Your task to perform on an android device: turn notification dots off Image 0: 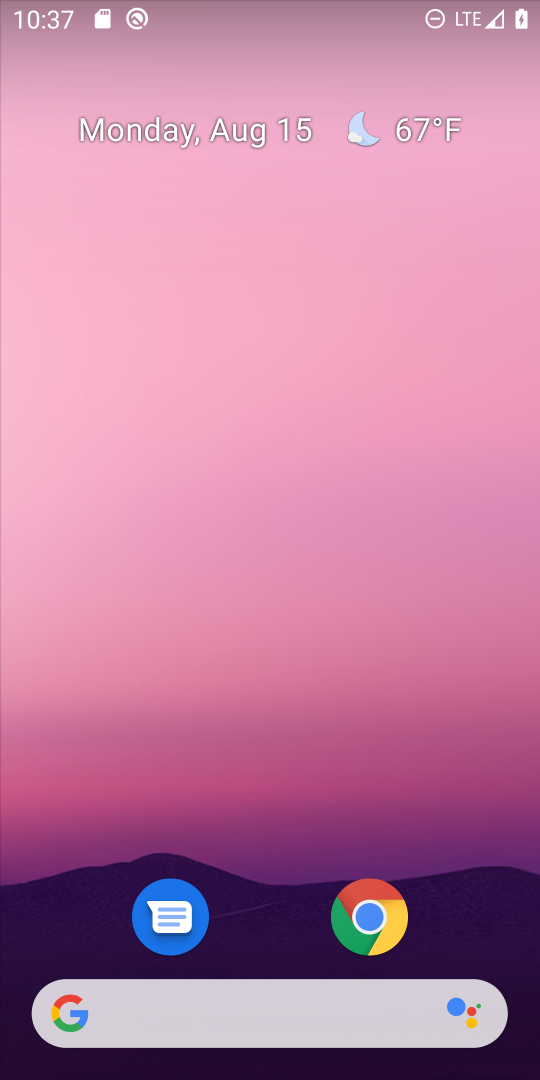
Step 0: drag from (294, 867) to (278, 17)
Your task to perform on an android device: turn notification dots off Image 1: 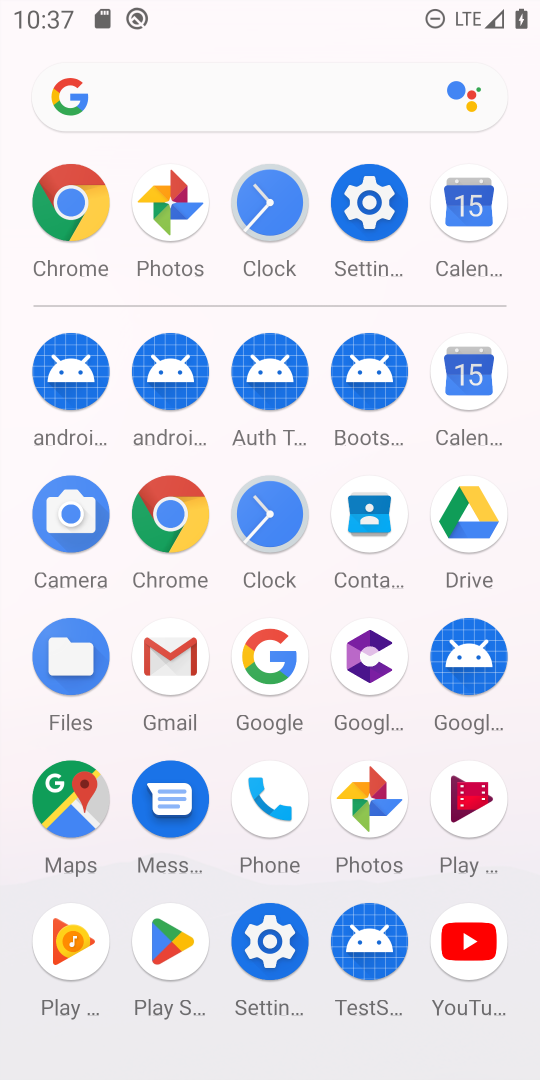
Step 1: click (357, 194)
Your task to perform on an android device: turn notification dots off Image 2: 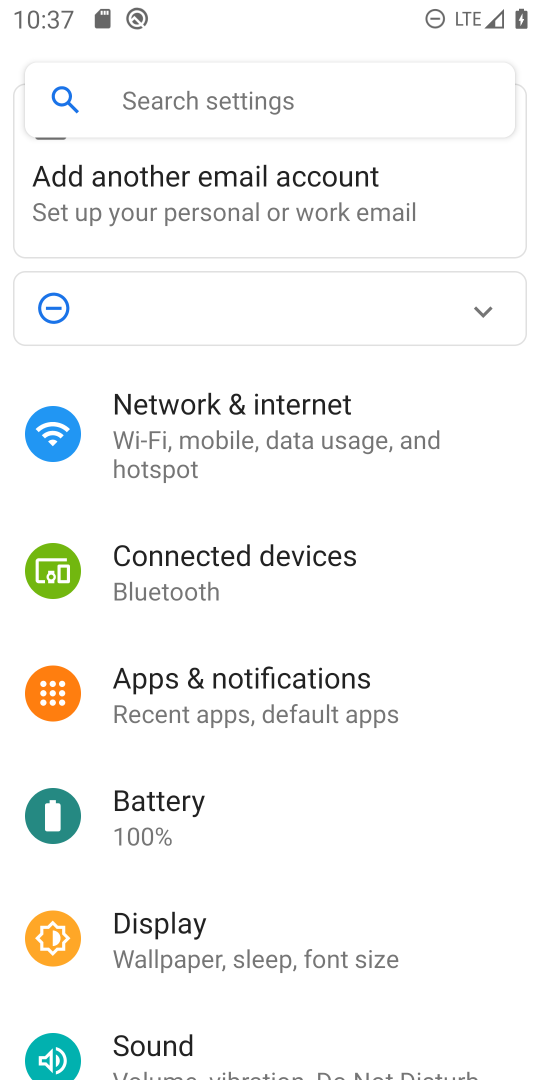
Step 2: click (250, 693)
Your task to perform on an android device: turn notification dots off Image 3: 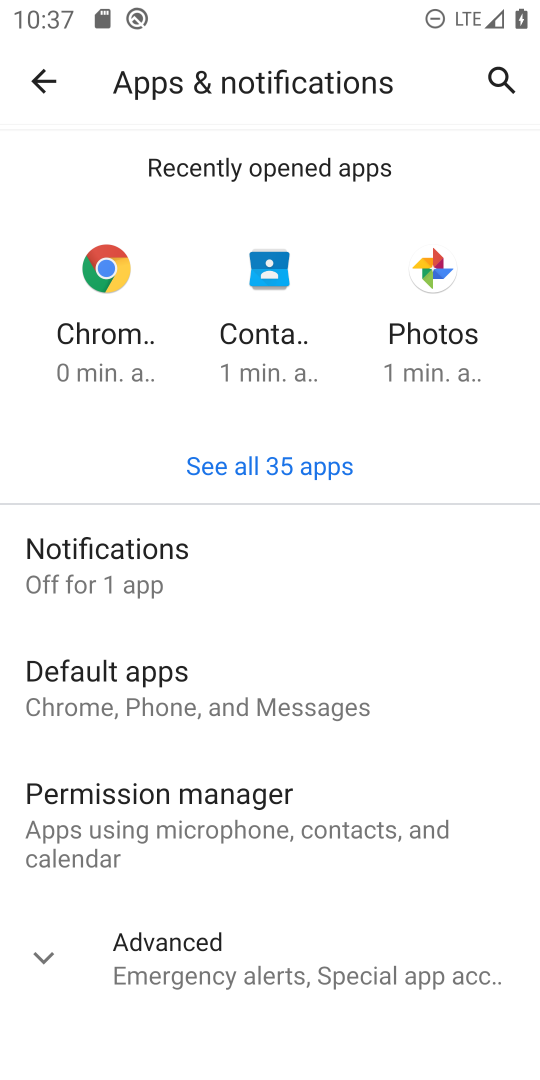
Step 3: click (46, 962)
Your task to perform on an android device: turn notification dots off Image 4: 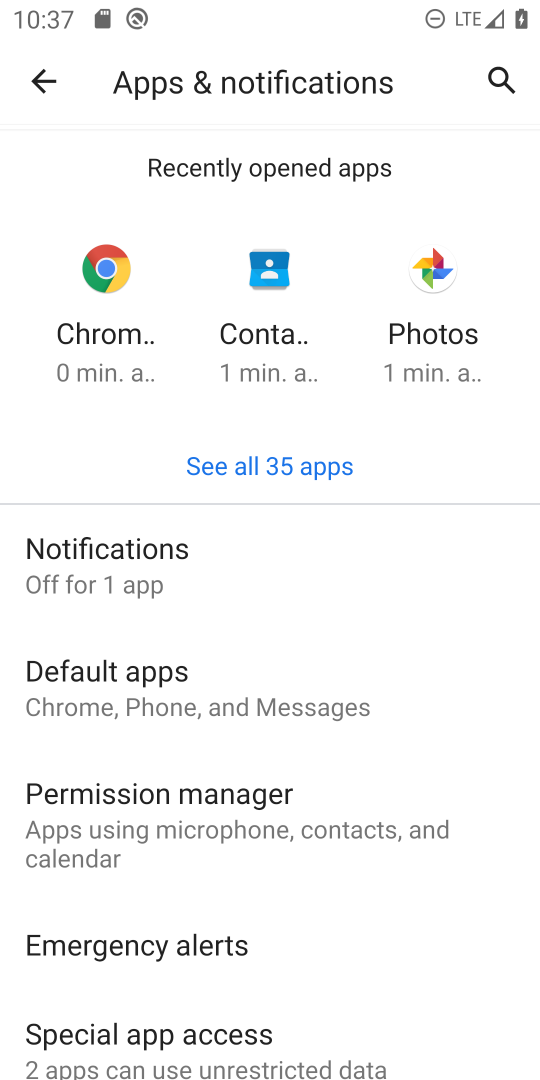
Step 4: drag from (379, 945) to (332, 0)
Your task to perform on an android device: turn notification dots off Image 5: 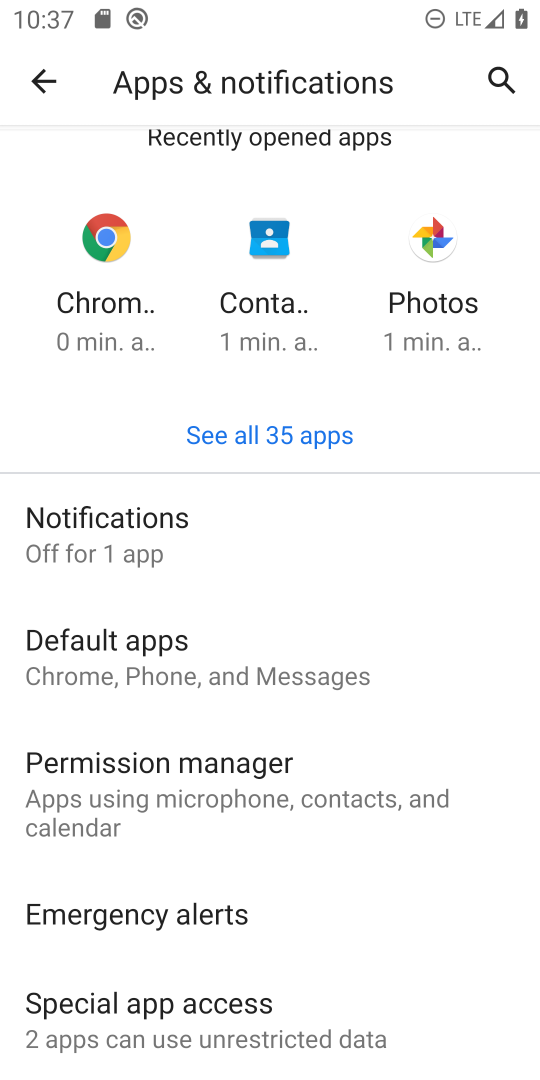
Step 5: click (127, 533)
Your task to perform on an android device: turn notification dots off Image 6: 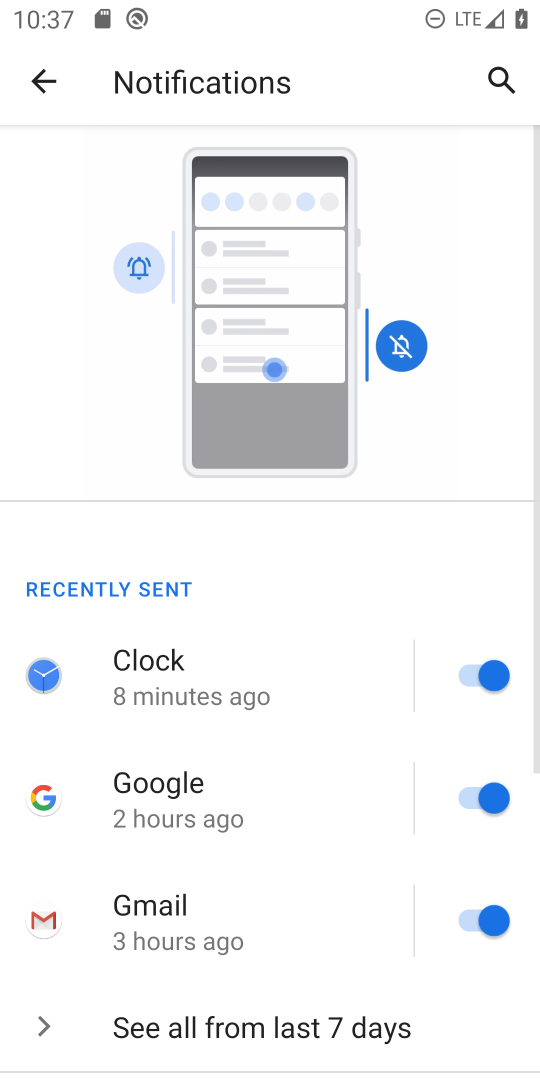
Step 6: drag from (329, 895) to (325, 0)
Your task to perform on an android device: turn notification dots off Image 7: 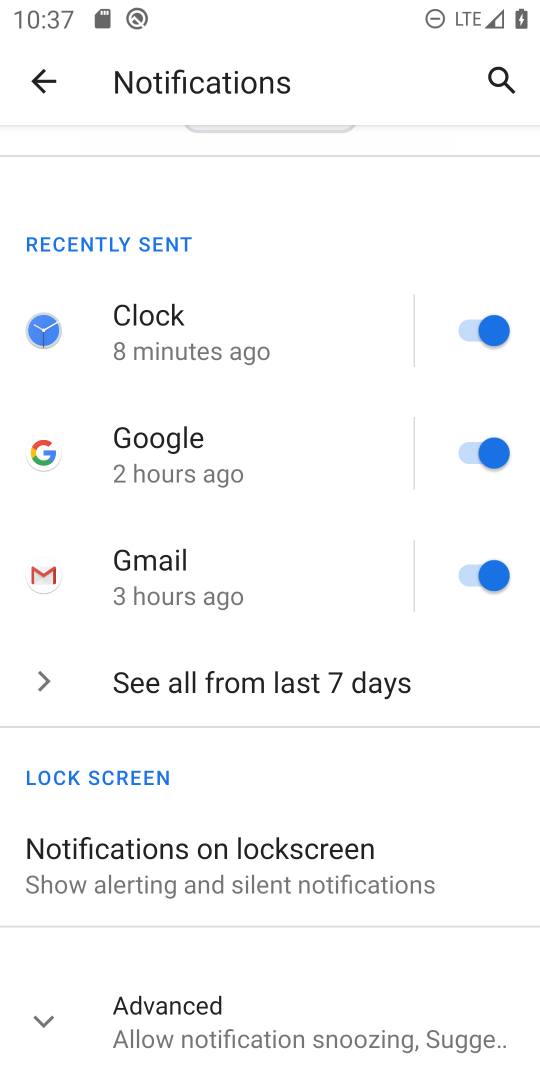
Step 7: click (47, 1017)
Your task to perform on an android device: turn notification dots off Image 8: 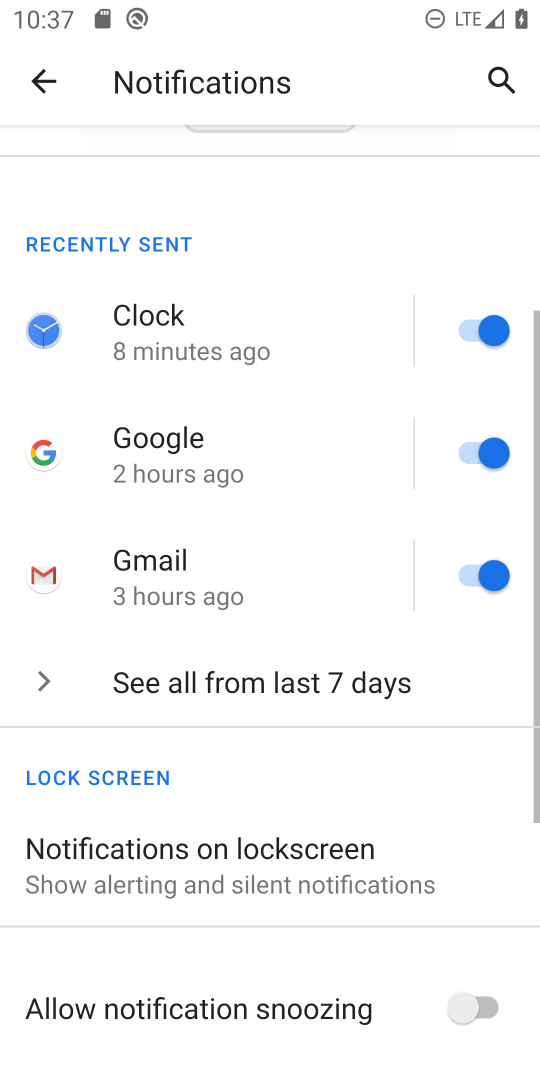
Step 8: drag from (222, 892) to (197, 172)
Your task to perform on an android device: turn notification dots off Image 9: 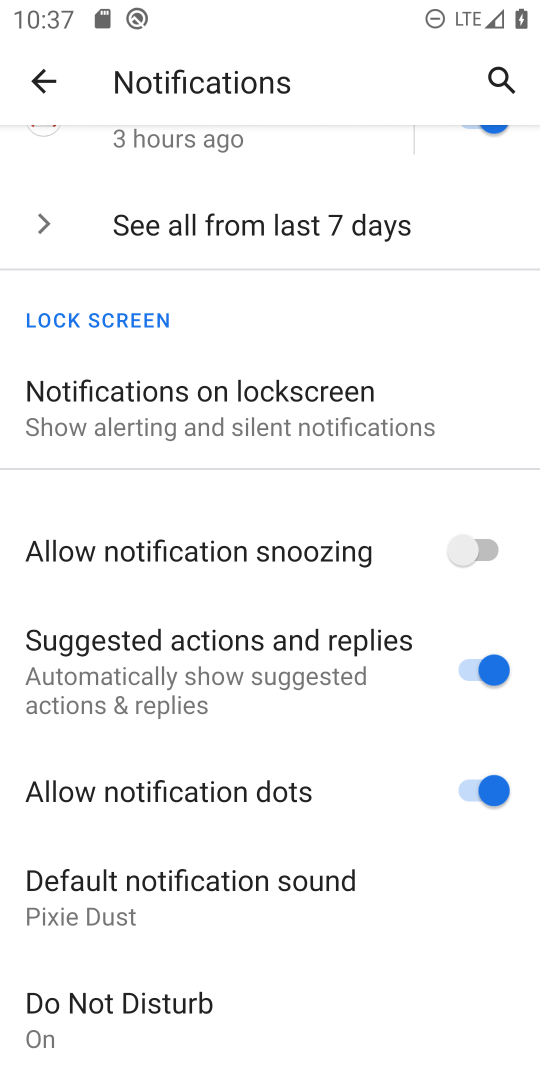
Step 9: click (474, 794)
Your task to perform on an android device: turn notification dots off Image 10: 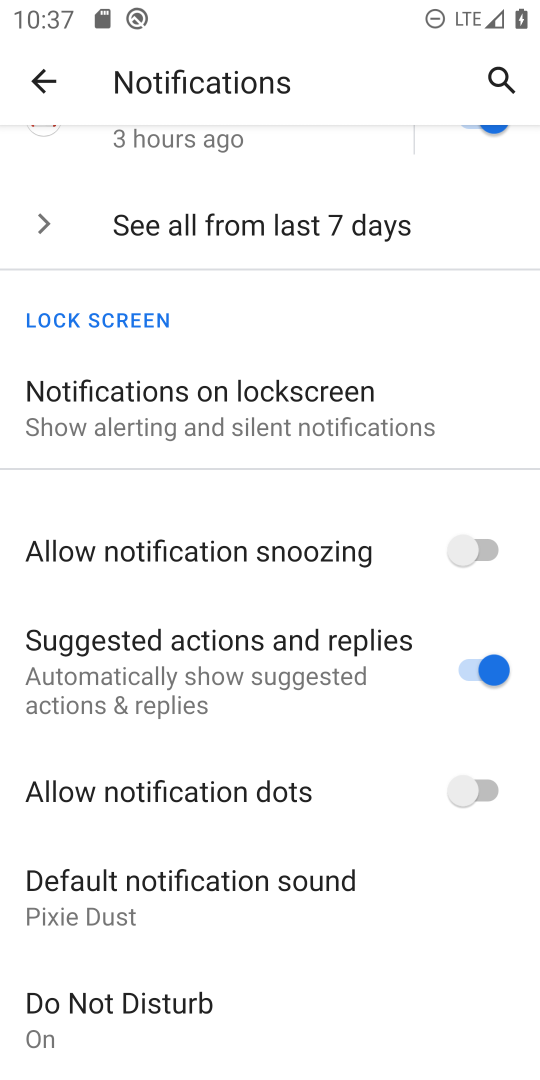
Step 10: task complete